Your task to perform on an android device: set default search engine in the chrome app Image 0: 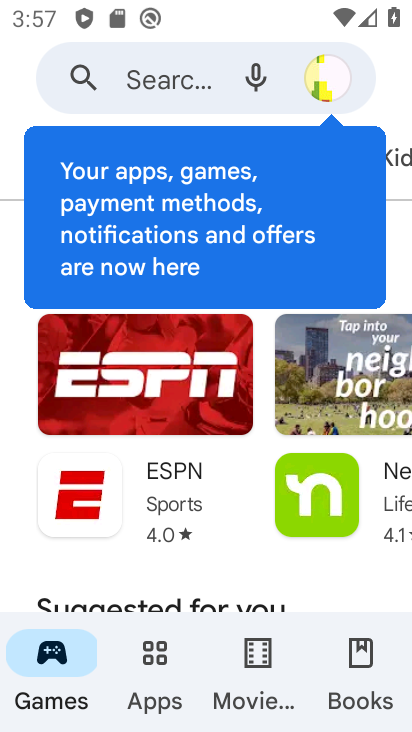
Step 0: press home button
Your task to perform on an android device: set default search engine in the chrome app Image 1: 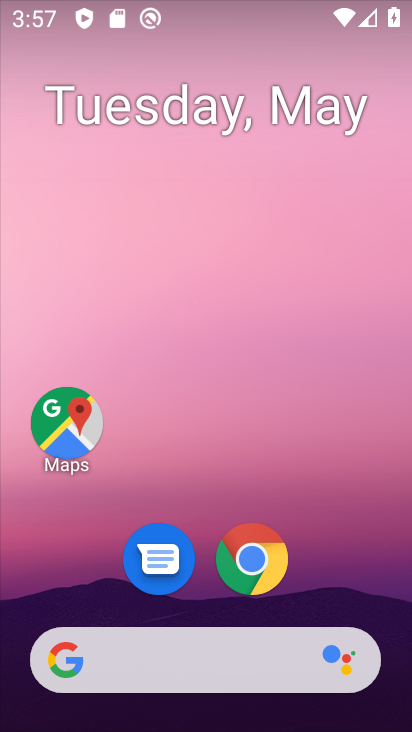
Step 1: drag from (385, 547) to (307, 114)
Your task to perform on an android device: set default search engine in the chrome app Image 2: 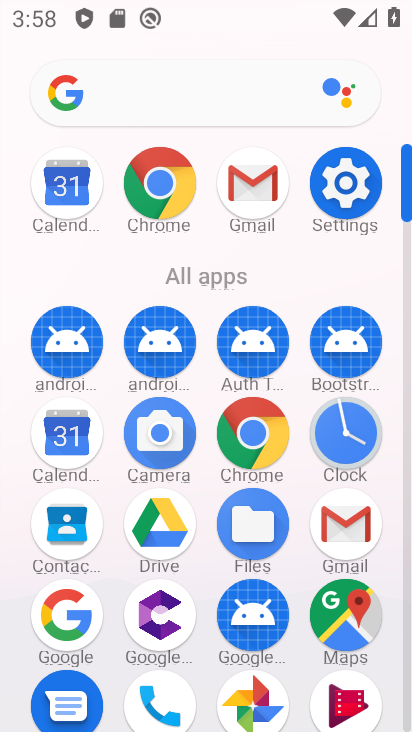
Step 2: click (170, 197)
Your task to perform on an android device: set default search engine in the chrome app Image 3: 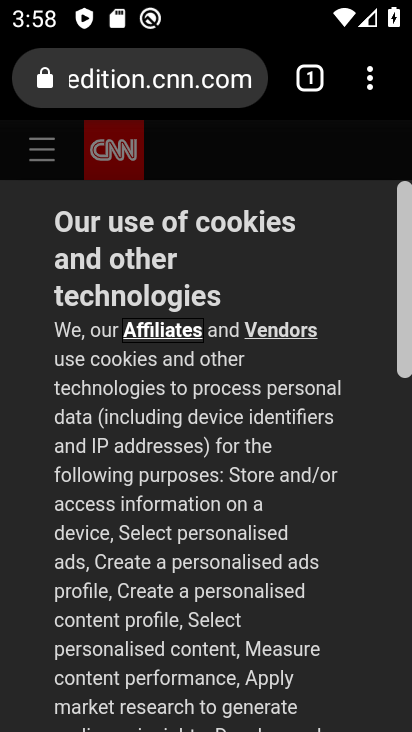
Step 3: click (376, 75)
Your task to perform on an android device: set default search engine in the chrome app Image 4: 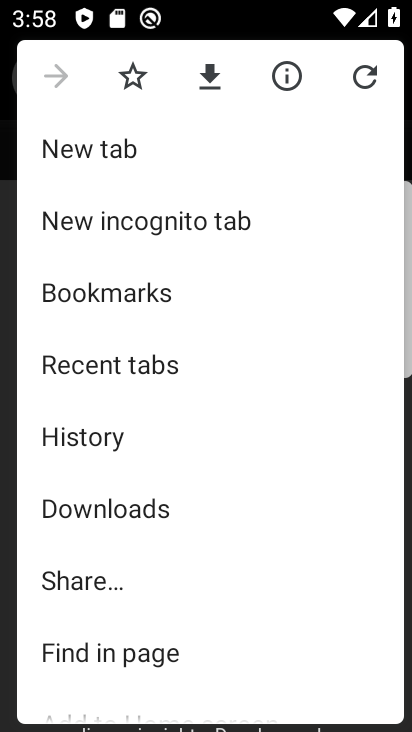
Step 4: drag from (193, 613) to (157, 120)
Your task to perform on an android device: set default search engine in the chrome app Image 5: 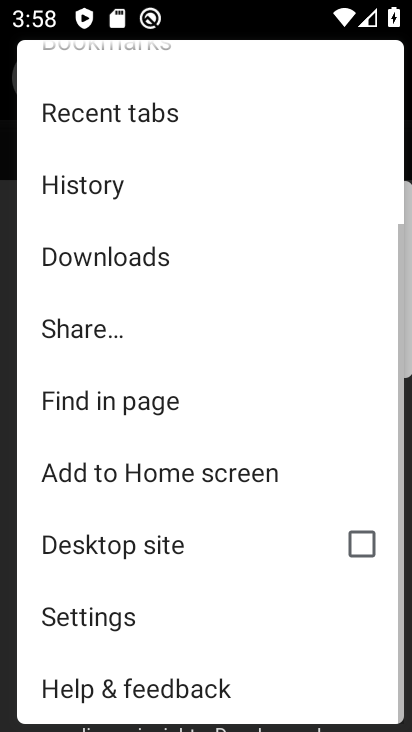
Step 5: click (120, 609)
Your task to perform on an android device: set default search engine in the chrome app Image 6: 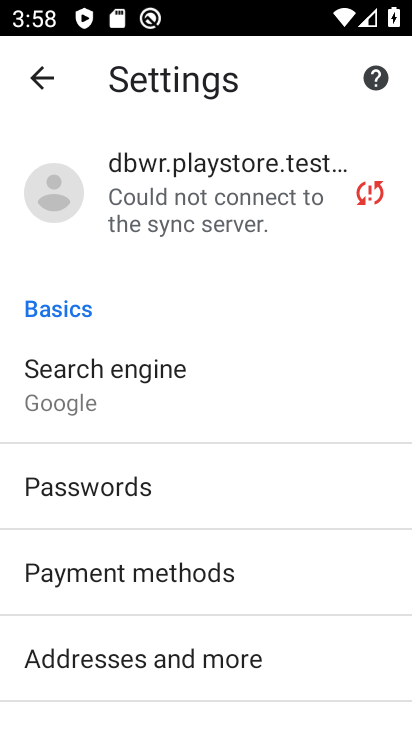
Step 6: click (184, 388)
Your task to perform on an android device: set default search engine in the chrome app Image 7: 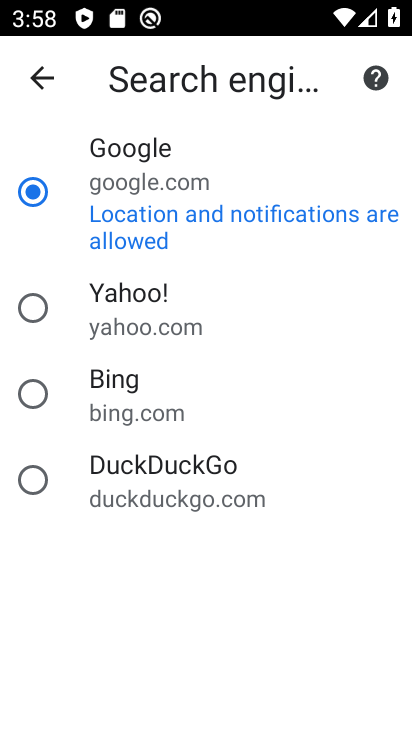
Step 7: click (156, 336)
Your task to perform on an android device: set default search engine in the chrome app Image 8: 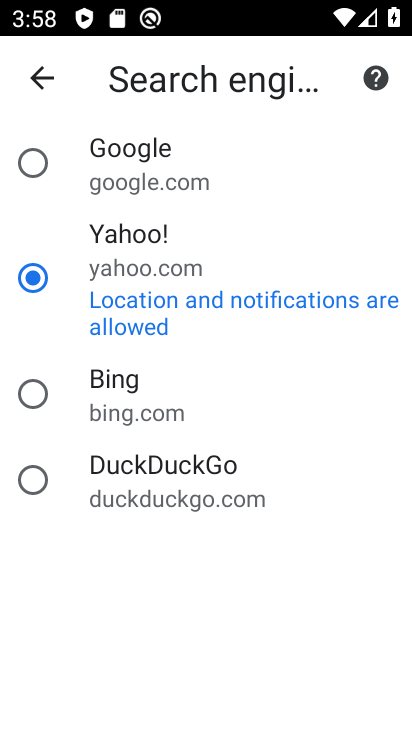
Step 8: task complete